Your task to perform on an android device: turn off javascript in the chrome app Image 0: 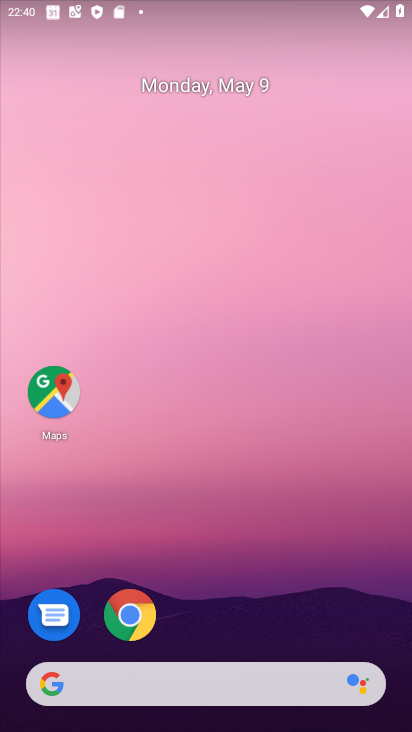
Step 0: click (125, 616)
Your task to perform on an android device: turn off javascript in the chrome app Image 1: 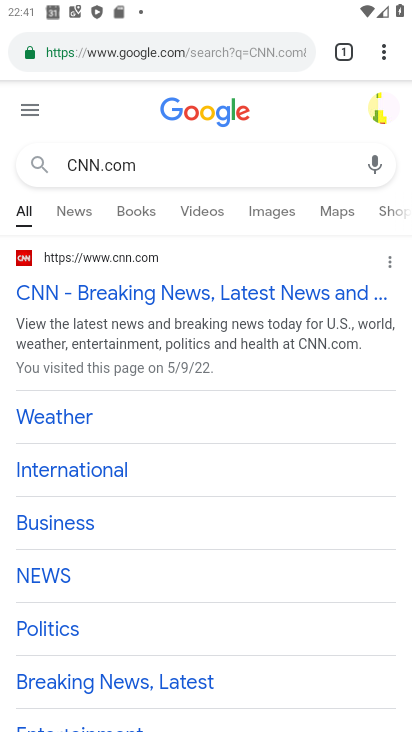
Step 1: click (383, 44)
Your task to perform on an android device: turn off javascript in the chrome app Image 2: 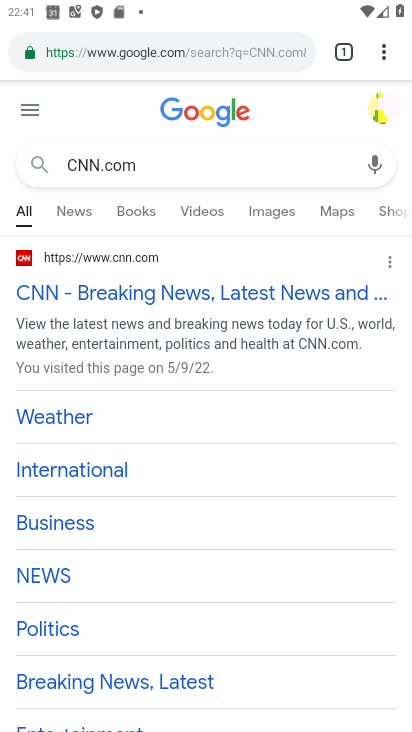
Step 2: click (383, 46)
Your task to perform on an android device: turn off javascript in the chrome app Image 3: 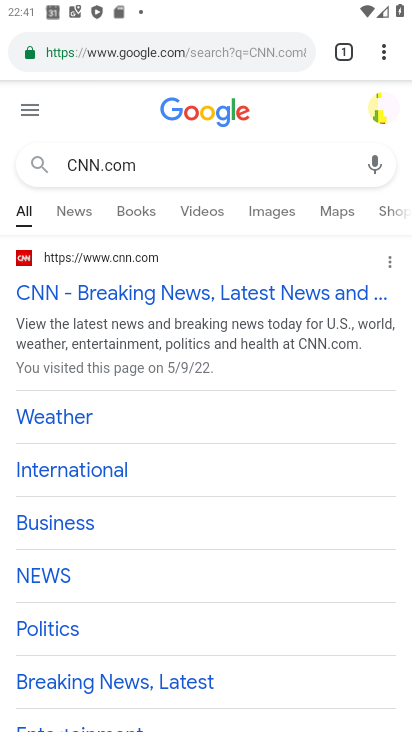
Step 3: click (383, 46)
Your task to perform on an android device: turn off javascript in the chrome app Image 4: 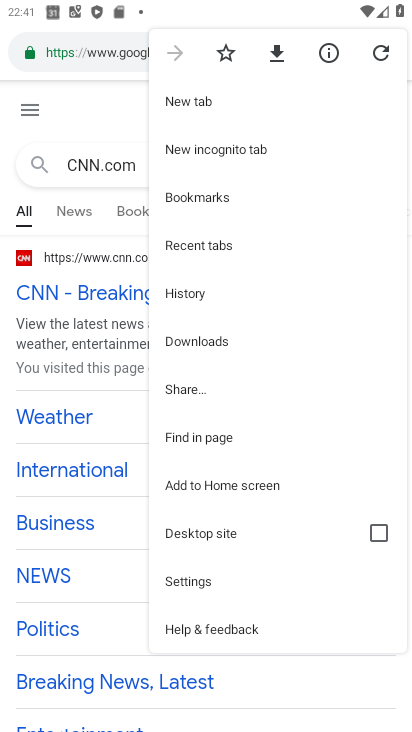
Step 4: click (213, 582)
Your task to perform on an android device: turn off javascript in the chrome app Image 5: 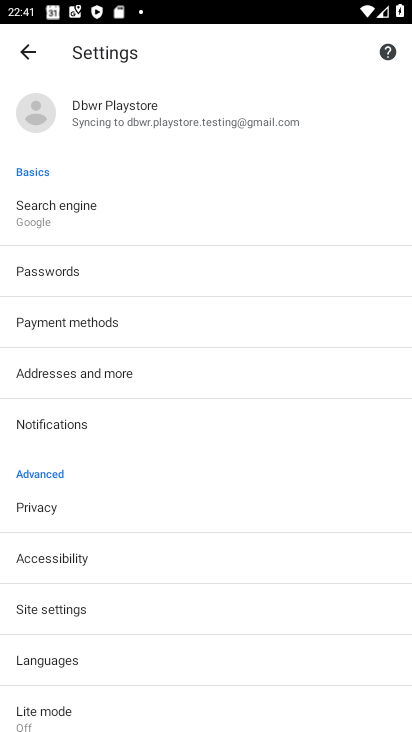
Step 5: click (95, 599)
Your task to perform on an android device: turn off javascript in the chrome app Image 6: 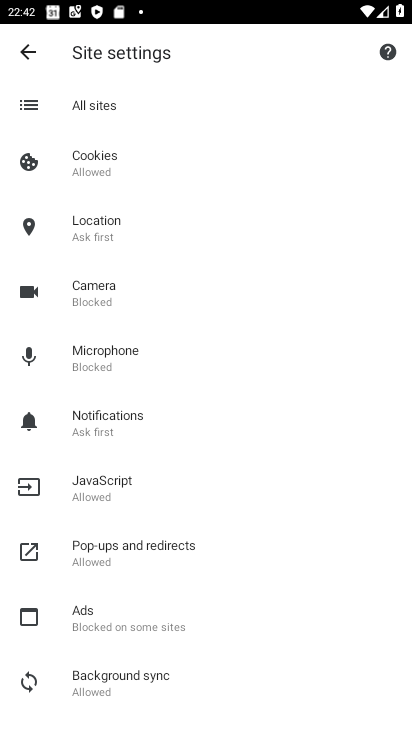
Step 6: click (121, 487)
Your task to perform on an android device: turn off javascript in the chrome app Image 7: 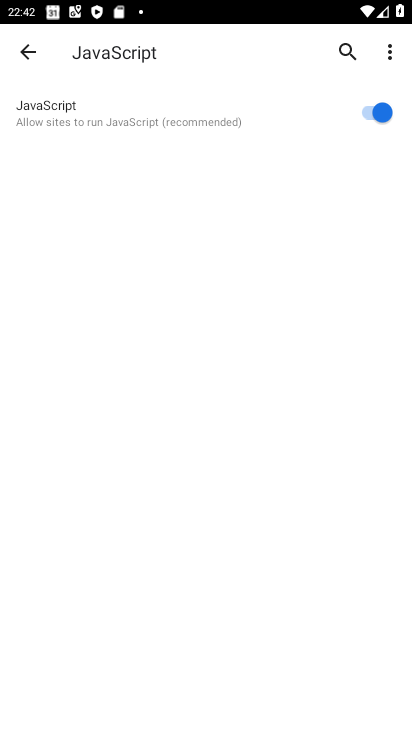
Step 7: click (372, 116)
Your task to perform on an android device: turn off javascript in the chrome app Image 8: 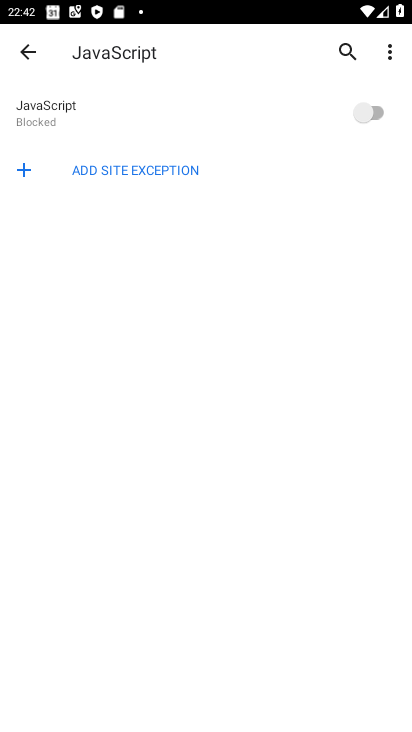
Step 8: task complete